Your task to perform on an android device: toggle show notifications on the lock screen Image 0: 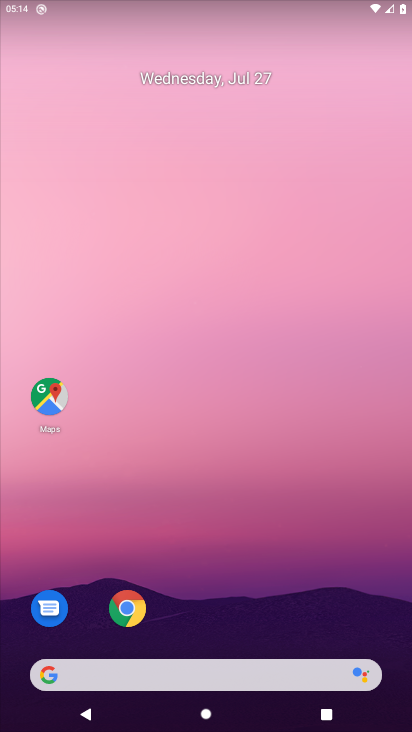
Step 0: press home button
Your task to perform on an android device: toggle show notifications on the lock screen Image 1: 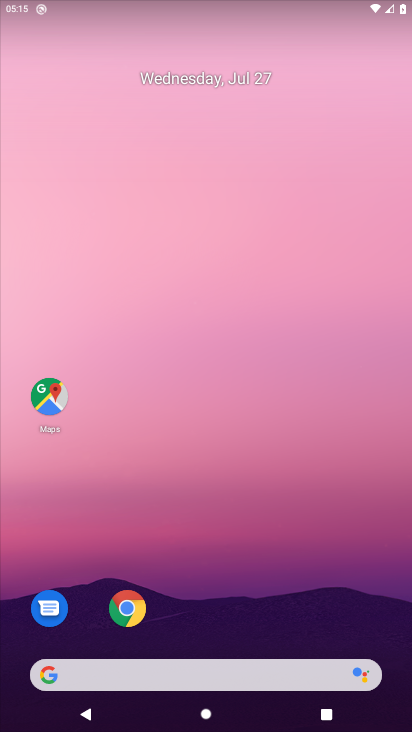
Step 1: drag from (207, 617) to (108, 176)
Your task to perform on an android device: toggle show notifications on the lock screen Image 2: 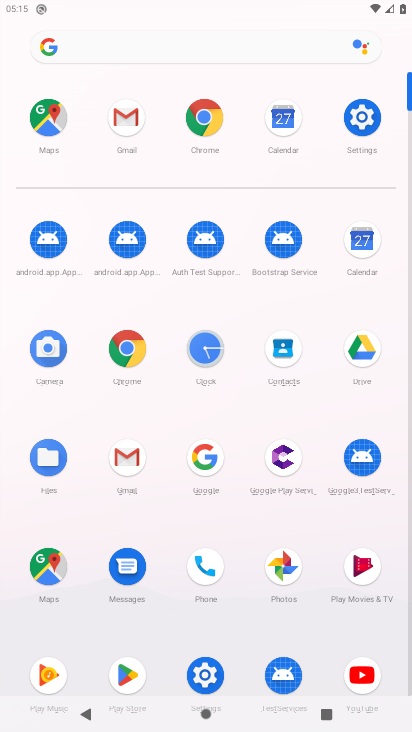
Step 2: click (363, 114)
Your task to perform on an android device: toggle show notifications on the lock screen Image 3: 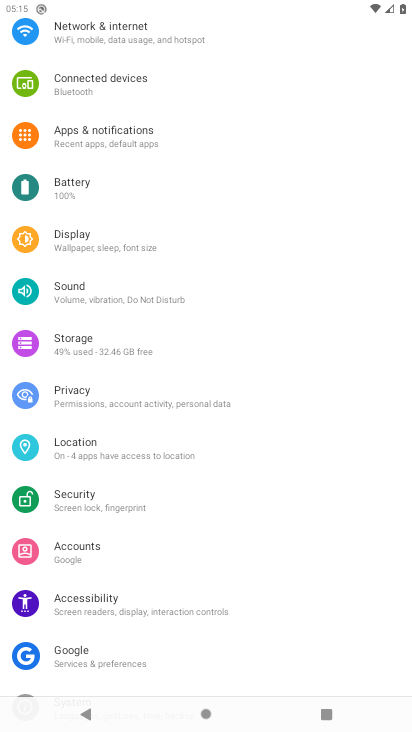
Step 3: click (102, 130)
Your task to perform on an android device: toggle show notifications on the lock screen Image 4: 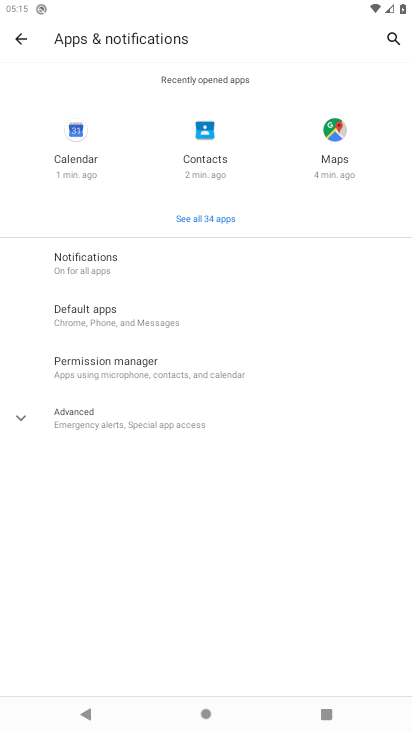
Step 4: click (94, 280)
Your task to perform on an android device: toggle show notifications on the lock screen Image 5: 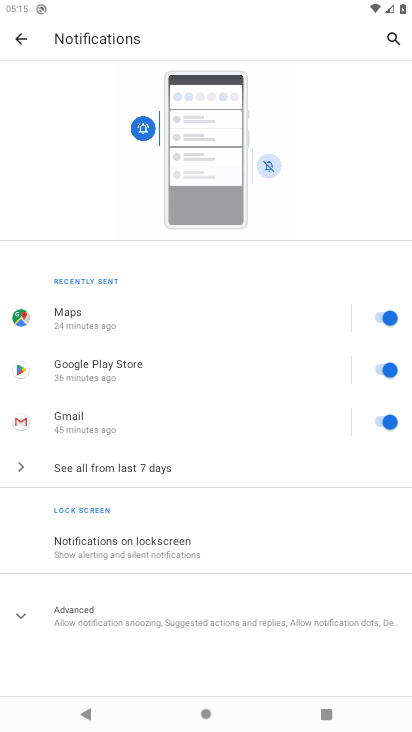
Step 5: click (90, 549)
Your task to perform on an android device: toggle show notifications on the lock screen Image 6: 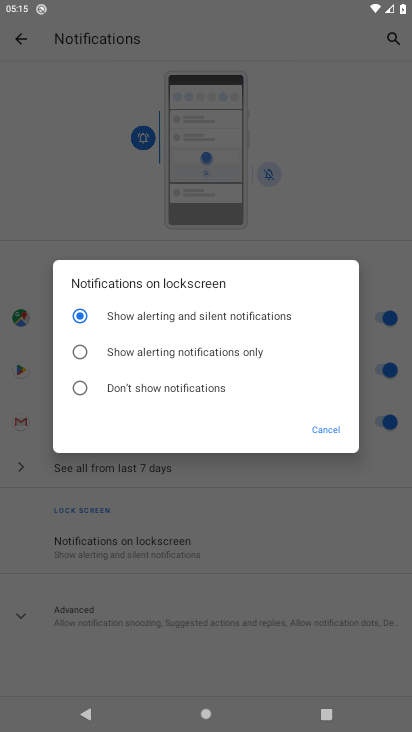
Step 6: click (77, 386)
Your task to perform on an android device: toggle show notifications on the lock screen Image 7: 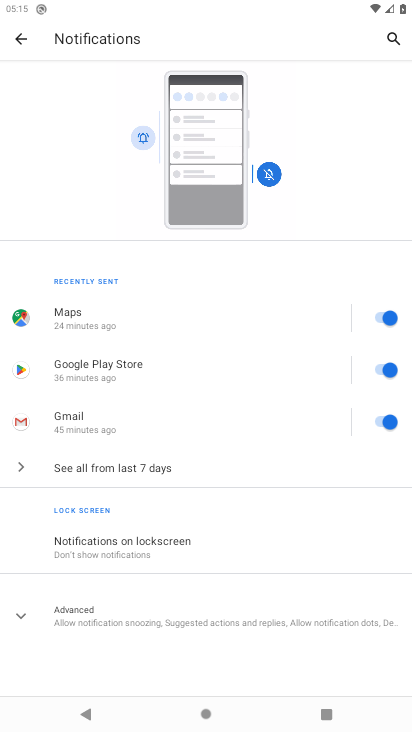
Step 7: task complete